Your task to perform on an android device: empty trash in google photos Image 0: 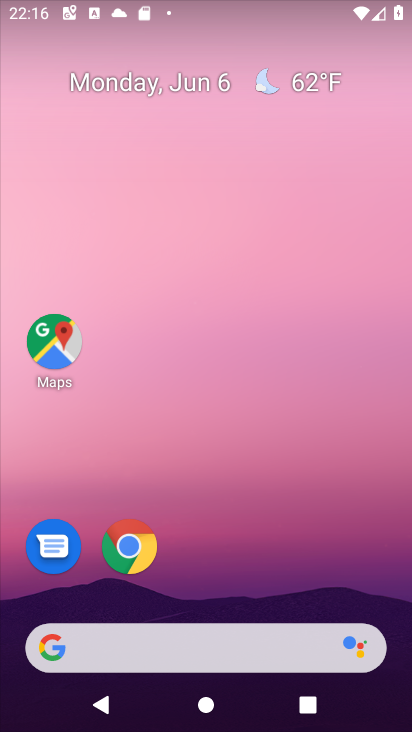
Step 0: drag from (402, 649) to (302, 115)
Your task to perform on an android device: empty trash in google photos Image 1: 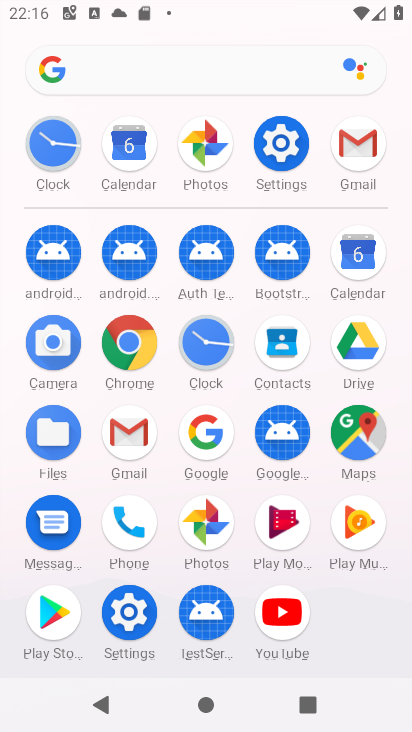
Step 1: click (205, 523)
Your task to perform on an android device: empty trash in google photos Image 2: 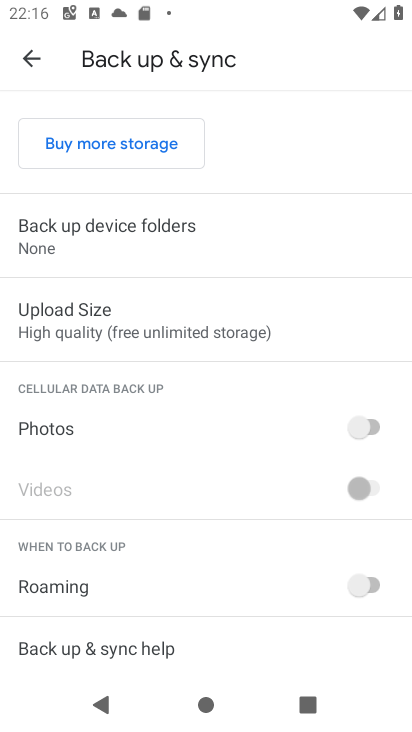
Step 2: press back button
Your task to perform on an android device: empty trash in google photos Image 3: 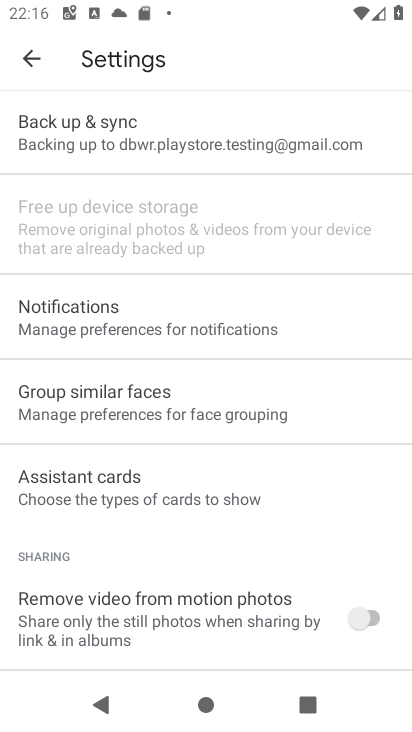
Step 3: press back button
Your task to perform on an android device: empty trash in google photos Image 4: 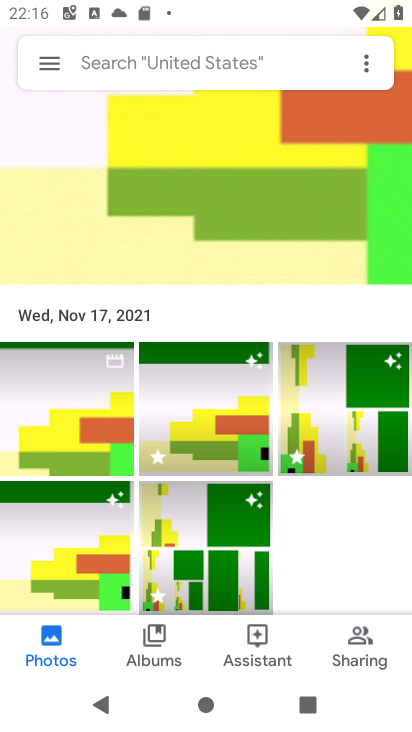
Step 4: click (48, 61)
Your task to perform on an android device: empty trash in google photos Image 5: 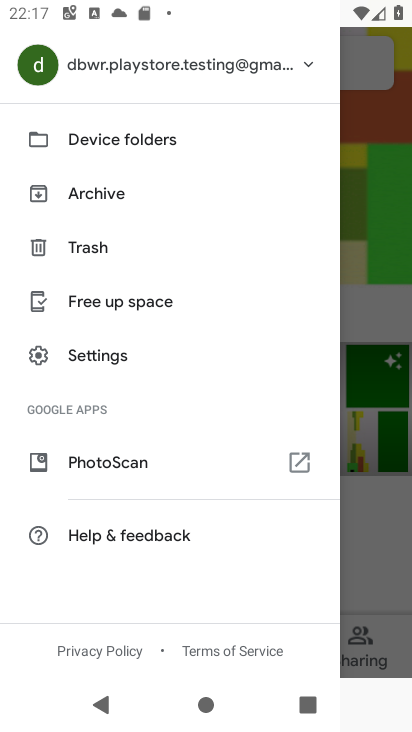
Step 5: click (86, 249)
Your task to perform on an android device: empty trash in google photos Image 6: 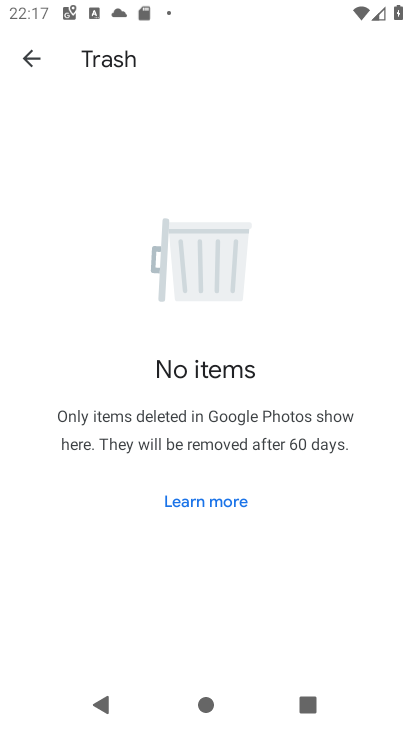
Step 6: task complete